Your task to perform on an android device: change notifications settings Image 0: 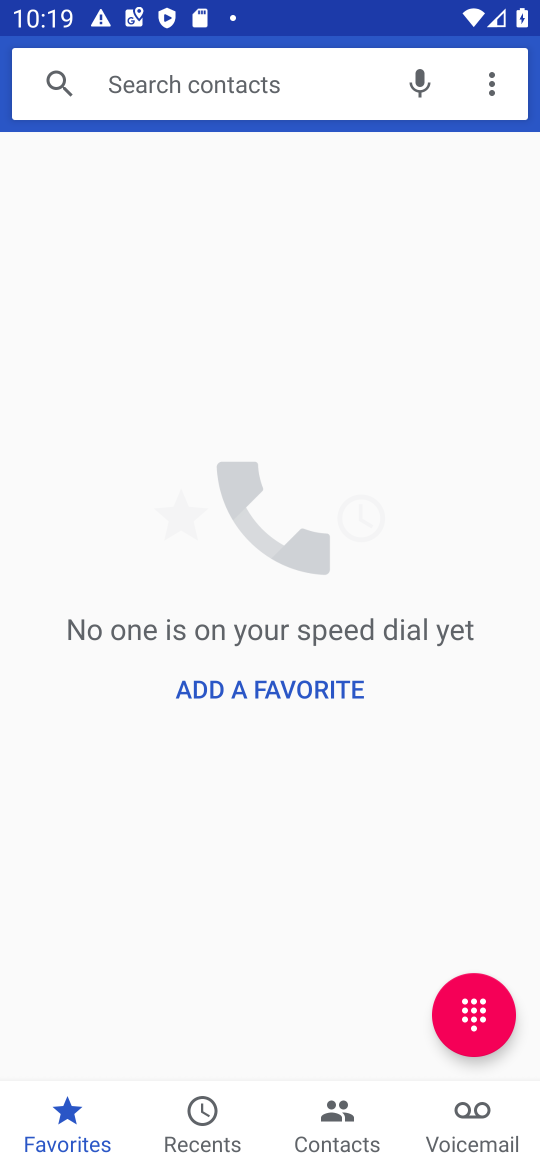
Step 0: press home button
Your task to perform on an android device: change notifications settings Image 1: 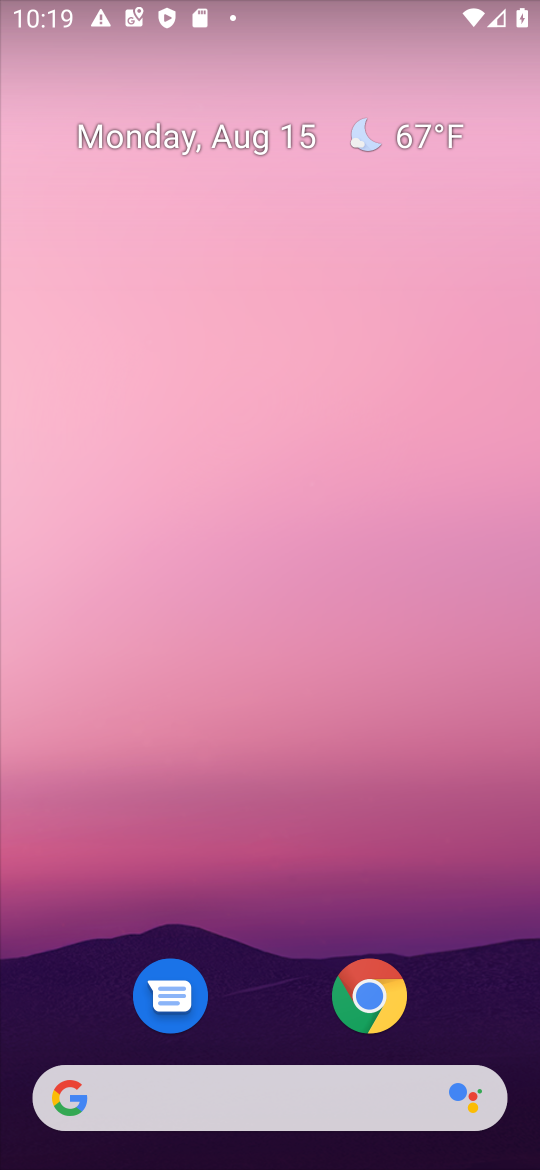
Step 1: drag from (283, 983) to (304, 134)
Your task to perform on an android device: change notifications settings Image 2: 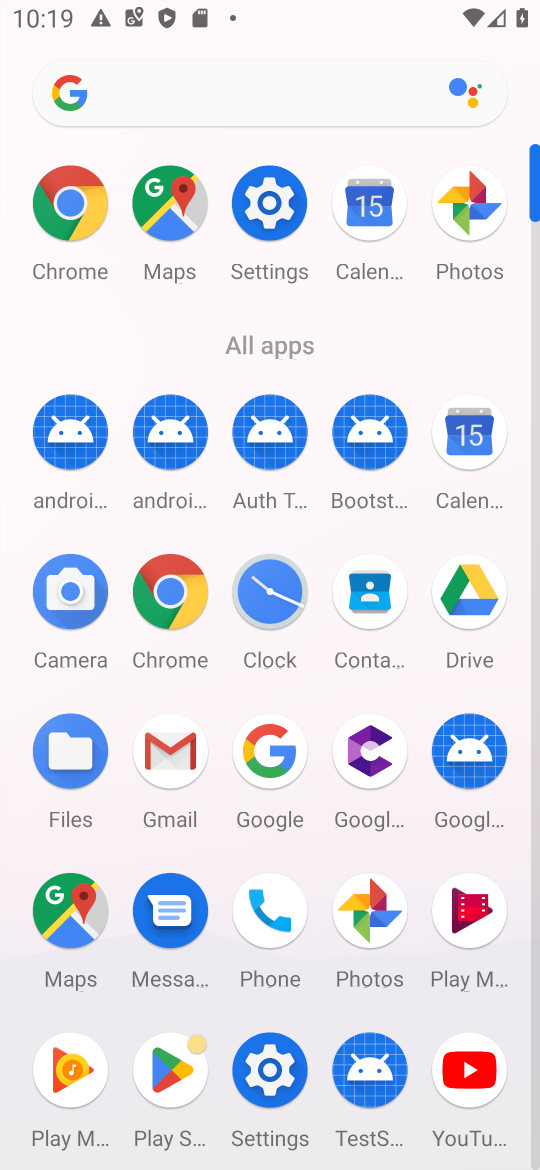
Step 2: click (249, 194)
Your task to perform on an android device: change notifications settings Image 3: 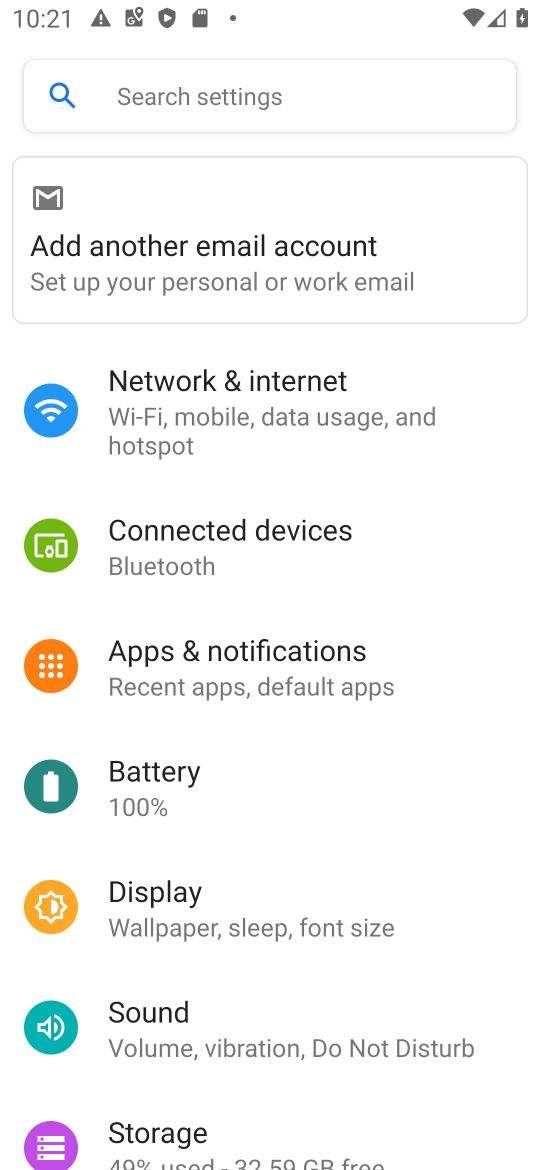
Step 3: click (316, 662)
Your task to perform on an android device: change notifications settings Image 4: 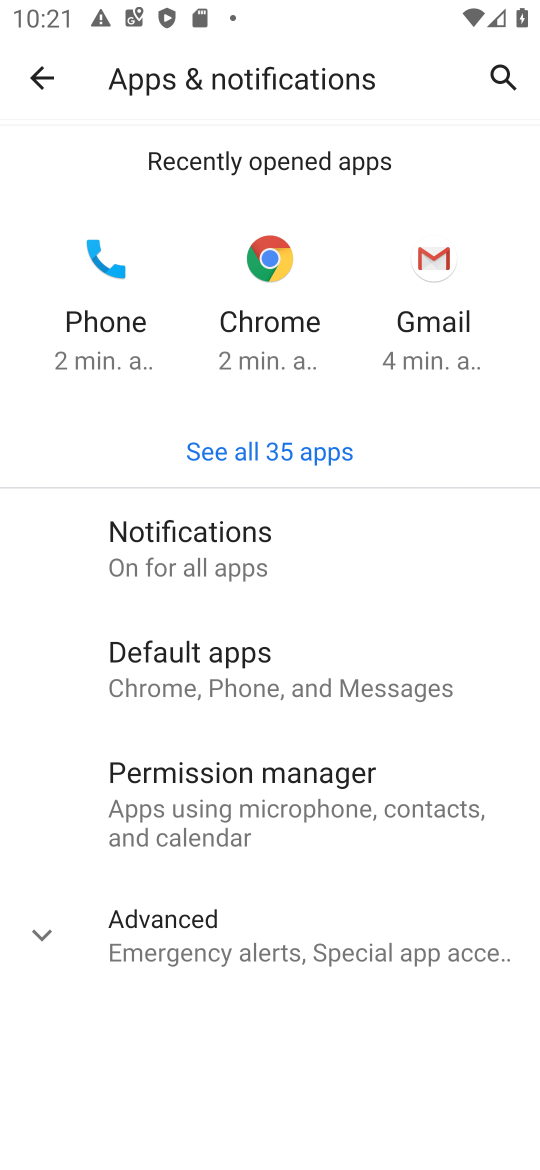
Step 4: click (224, 948)
Your task to perform on an android device: change notifications settings Image 5: 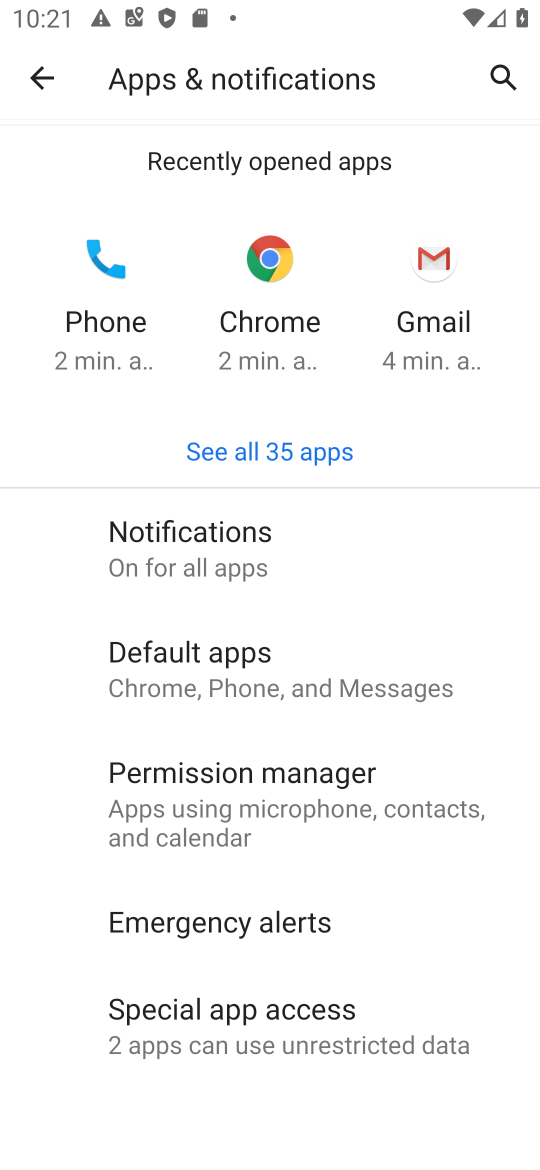
Step 5: drag from (236, 1014) to (238, 495)
Your task to perform on an android device: change notifications settings Image 6: 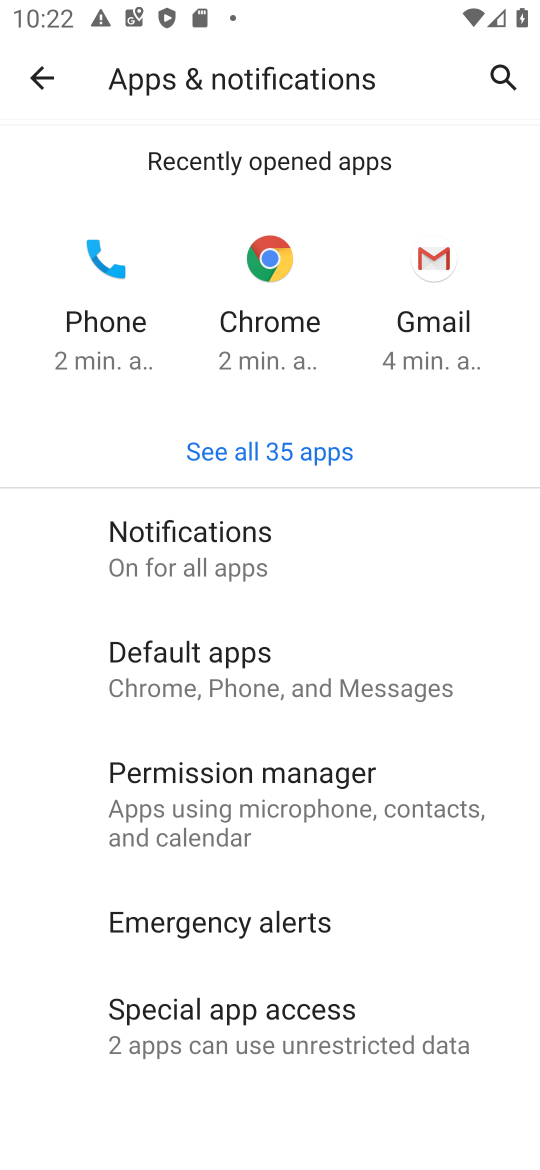
Step 6: click (225, 1022)
Your task to perform on an android device: change notifications settings Image 7: 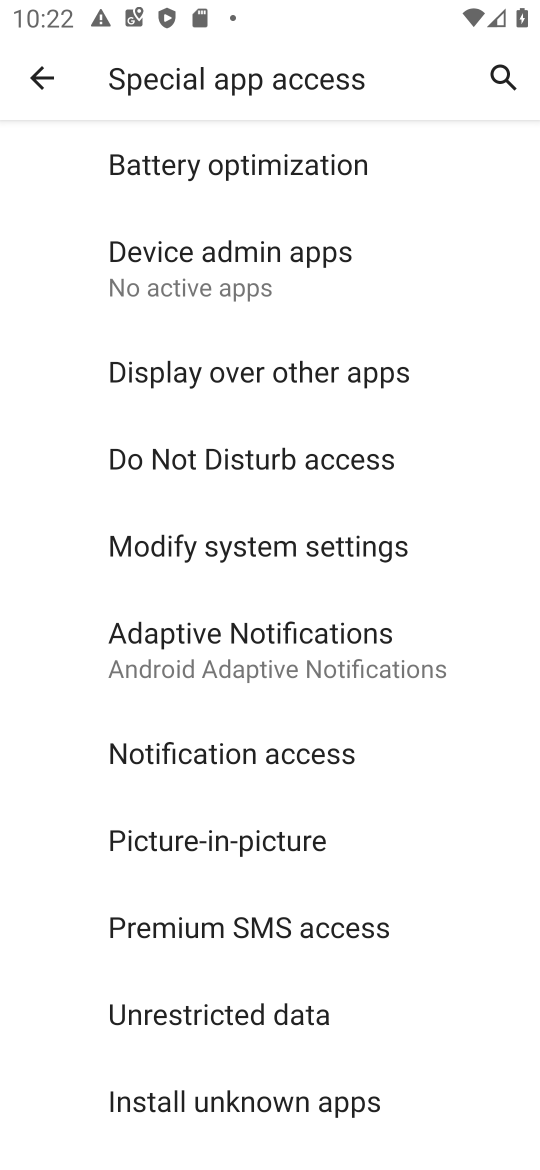
Step 7: click (195, 171)
Your task to perform on an android device: change notifications settings Image 8: 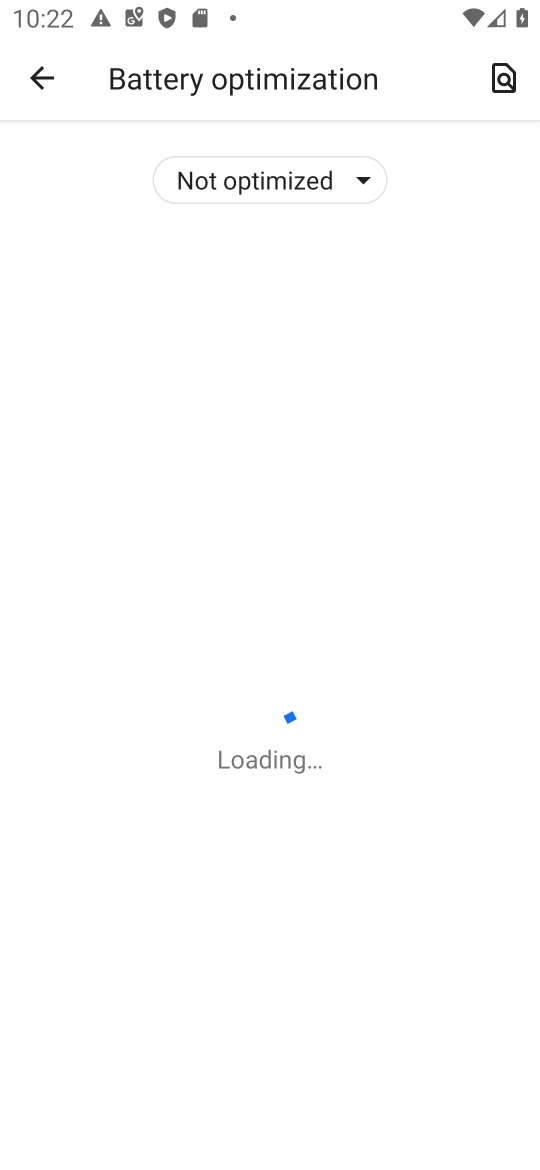
Step 8: task complete